Your task to perform on an android device: Go to display settings Image 0: 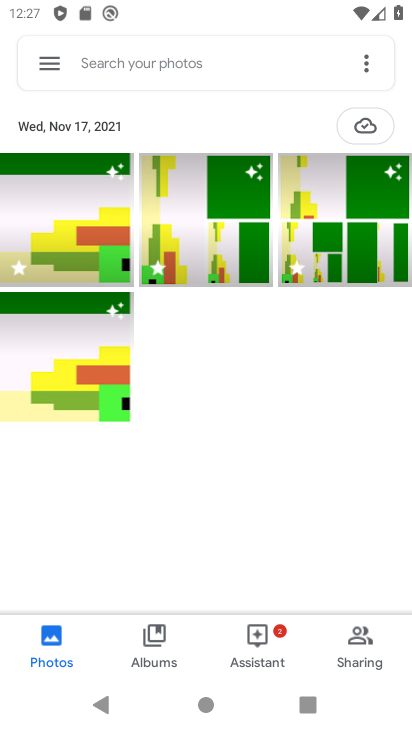
Step 0: press home button
Your task to perform on an android device: Go to display settings Image 1: 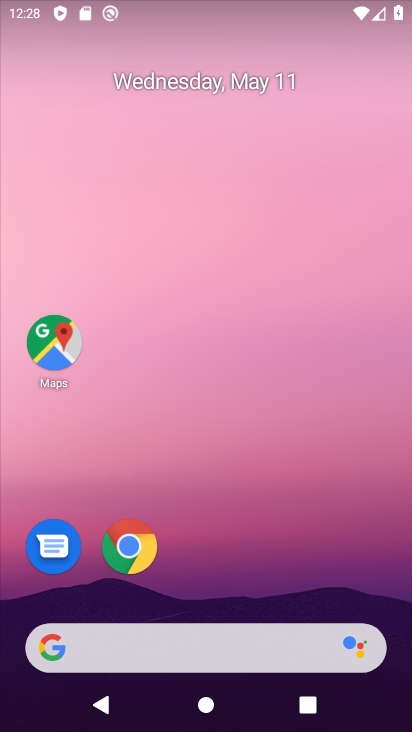
Step 1: drag from (252, 625) to (116, 218)
Your task to perform on an android device: Go to display settings Image 2: 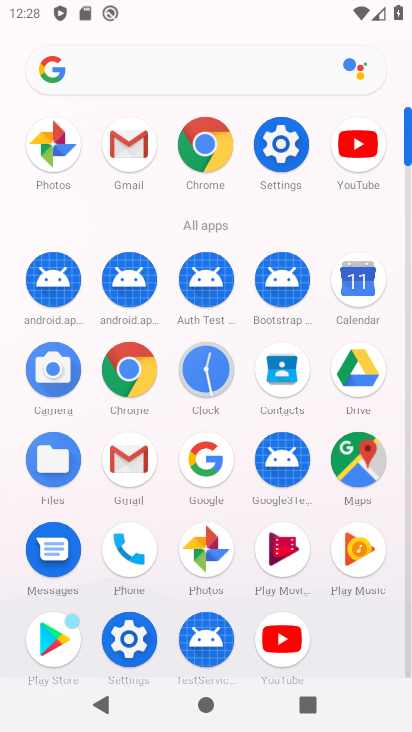
Step 2: click (137, 646)
Your task to perform on an android device: Go to display settings Image 3: 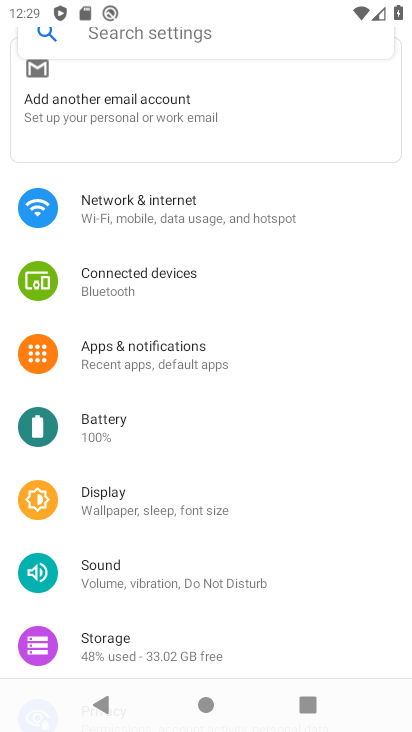
Step 3: click (116, 495)
Your task to perform on an android device: Go to display settings Image 4: 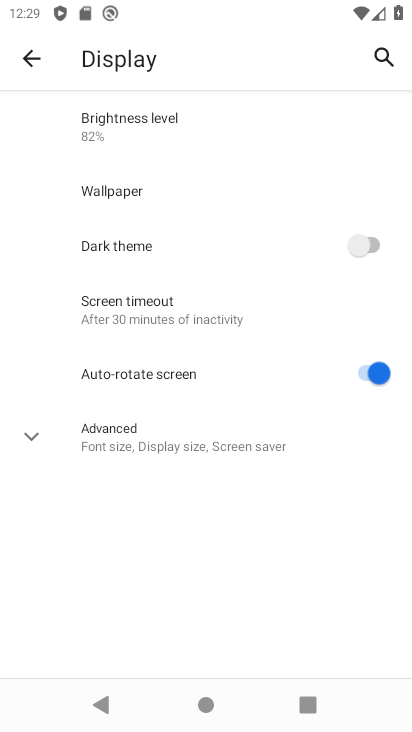
Step 4: task complete